Your task to perform on an android device: stop showing notifications on the lock screen Image 0: 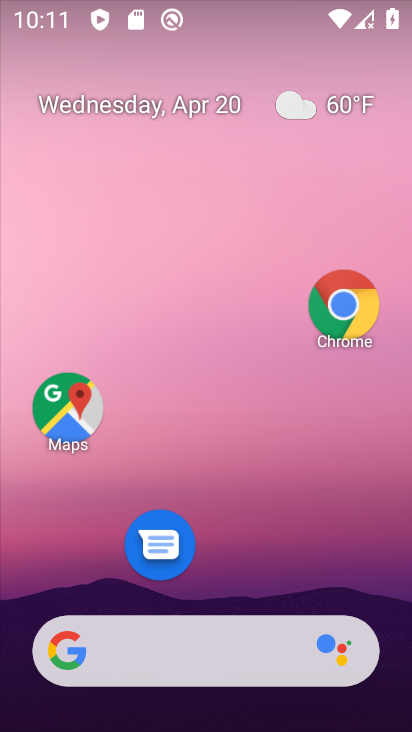
Step 0: drag from (233, 624) to (265, 289)
Your task to perform on an android device: stop showing notifications on the lock screen Image 1: 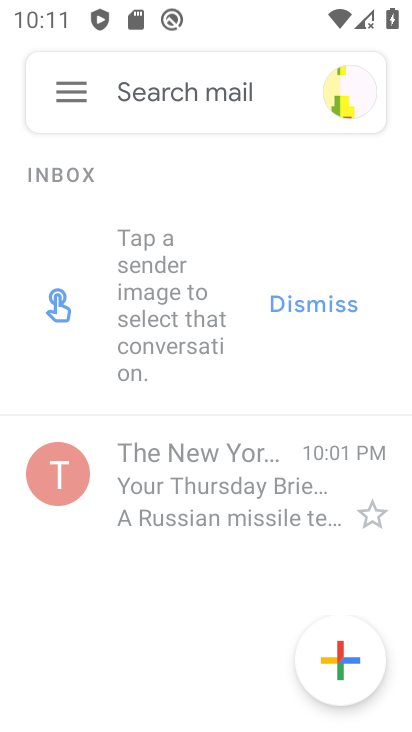
Step 1: press home button
Your task to perform on an android device: stop showing notifications on the lock screen Image 2: 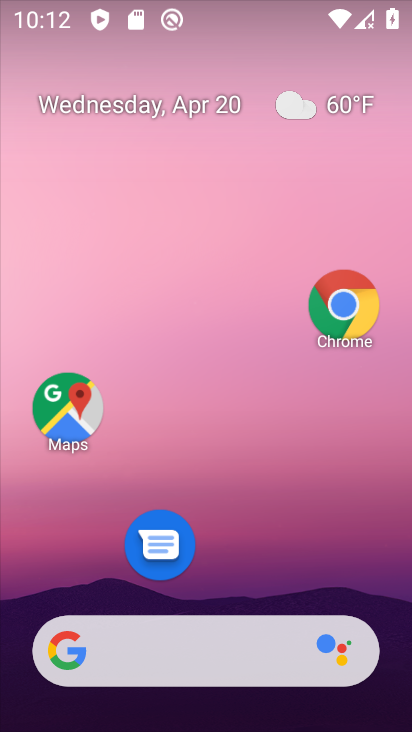
Step 2: drag from (301, 585) to (348, 288)
Your task to perform on an android device: stop showing notifications on the lock screen Image 3: 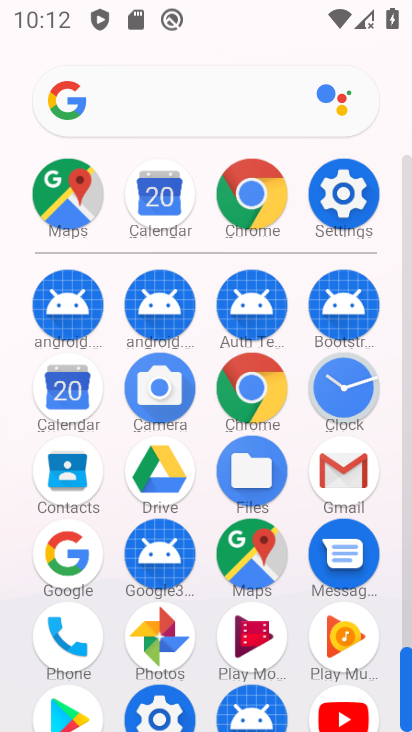
Step 3: click (346, 201)
Your task to perform on an android device: stop showing notifications on the lock screen Image 4: 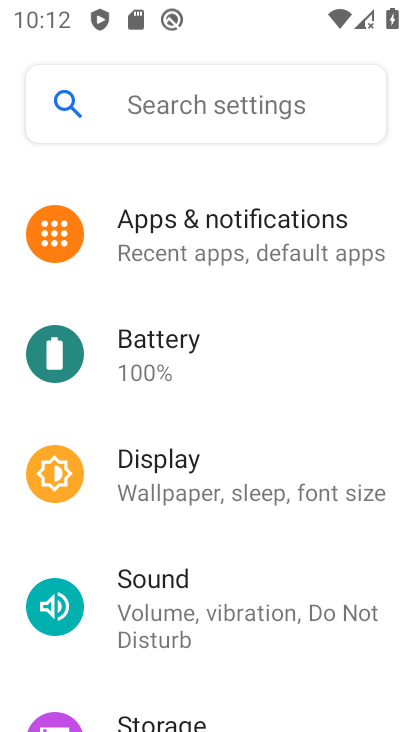
Step 4: click (277, 260)
Your task to perform on an android device: stop showing notifications on the lock screen Image 5: 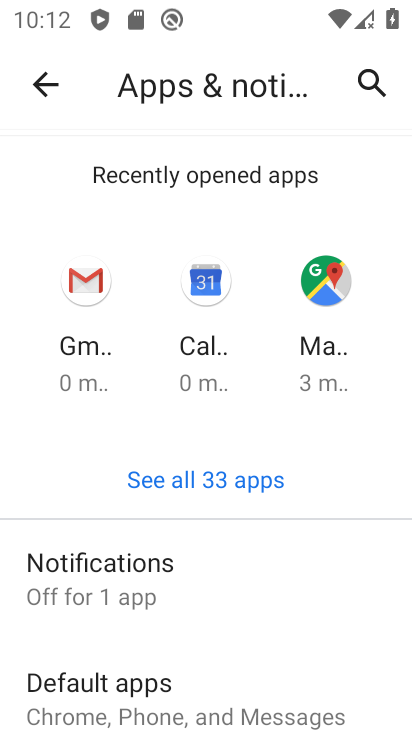
Step 5: drag from (228, 591) to (242, 435)
Your task to perform on an android device: stop showing notifications on the lock screen Image 6: 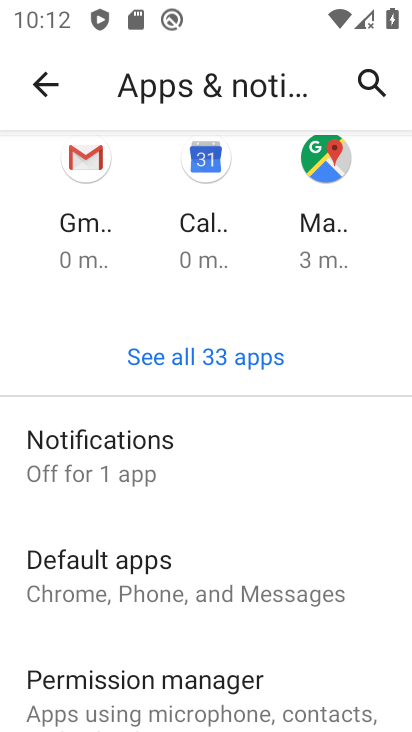
Step 6: click (231, 463)
Your task to perform on an android device: stop showing notifications on the lock screen Image 7: 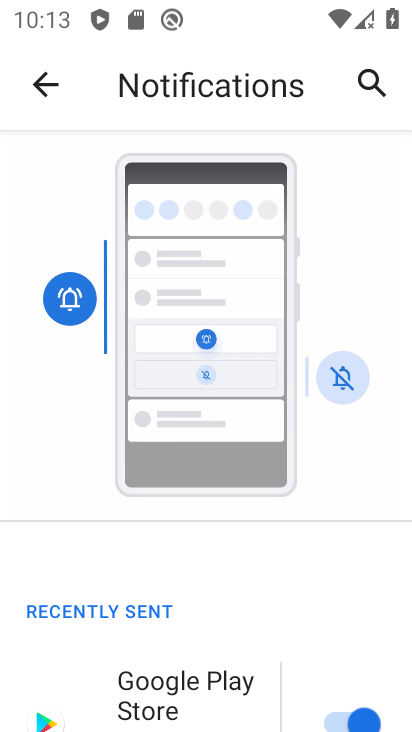
Step 7: drag from (250, 504) to (238, 141)
Your task to perform on an android device: stop showing notifications on the lock screen Image 8: 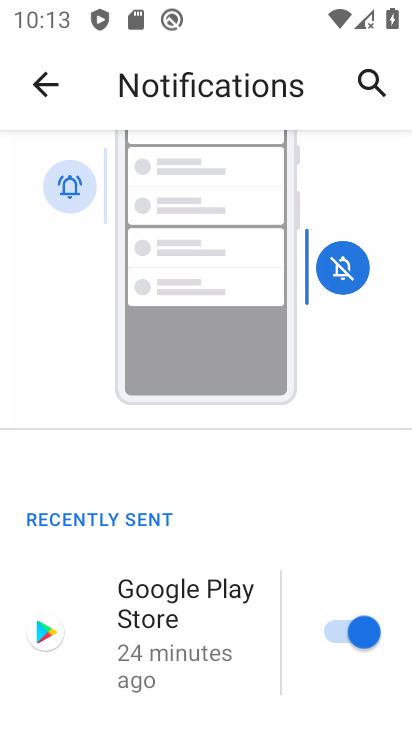
Step 8: drag from (236, 480) to (272, 177)
Your task to perform on an android device: stop showing notifications on the lock screen Image 9: 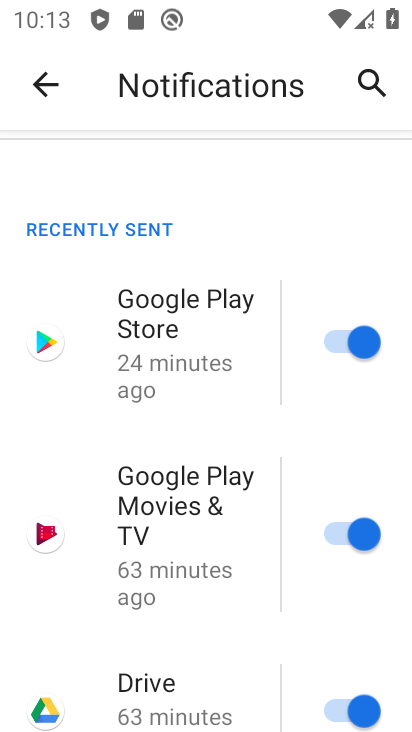
Step 9: drag from (222, 528) to (291, 113)
Your task to perform on an android device: stop showing notifications on the lock screen Image 10: 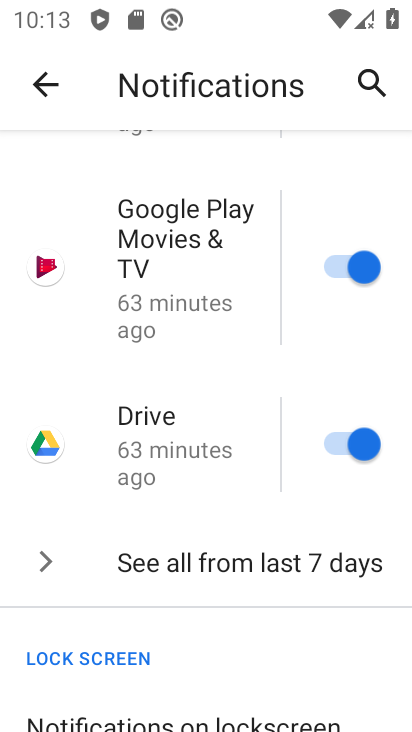
Step 10: drag from (209, 490) to (207, 98)
Your task to perform on an android device: stop showing notifications on the lock screen Image 11: 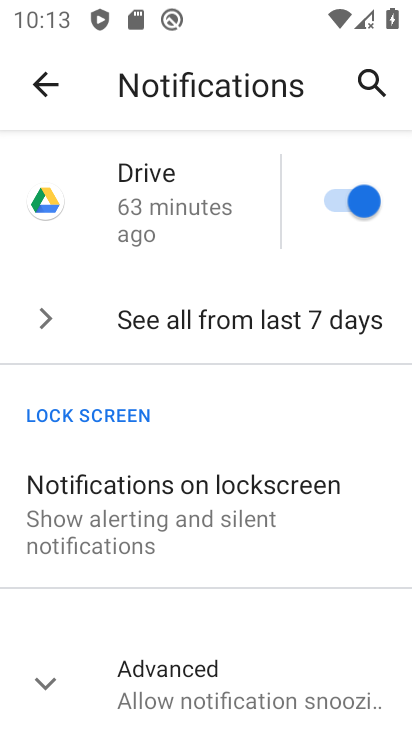
Step 11: click (264, 533)
Your task to perform on an android device: stop showing notifications on the lock screen Image 12: 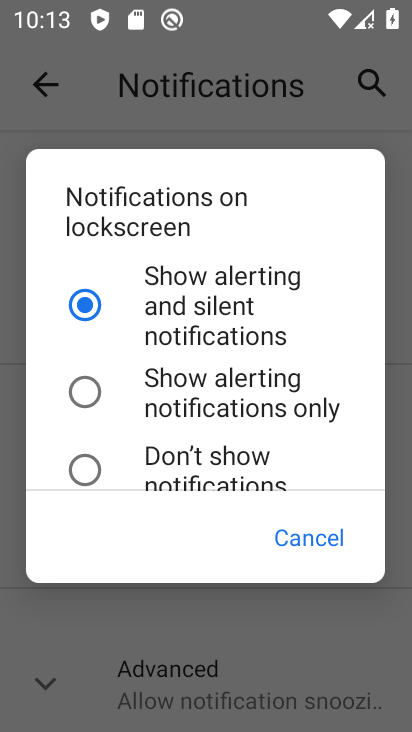
Step 12: click (85, 474)
Your task to perform on an android device: stop showing notifications on the lock screen Image 13: 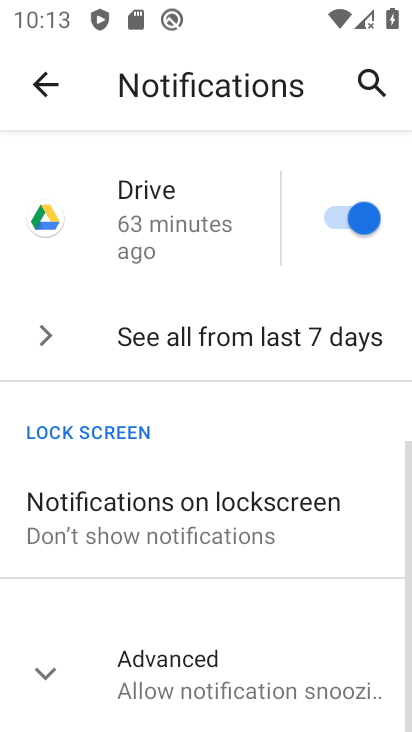
Step 13: task complete